Your task to perform on an android device: Open the Play Movies app and select the watchlist tab. Image 0: 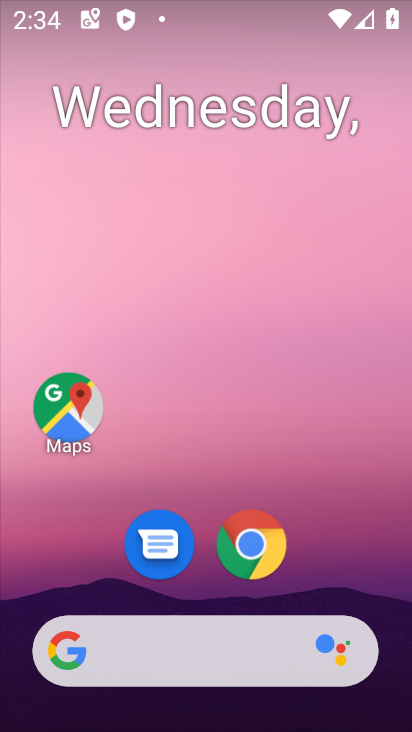
Step 0: click (353, 166)
Your task to perform on an android device: Open the Play Movies app and select the watchlist tab. Image 1: 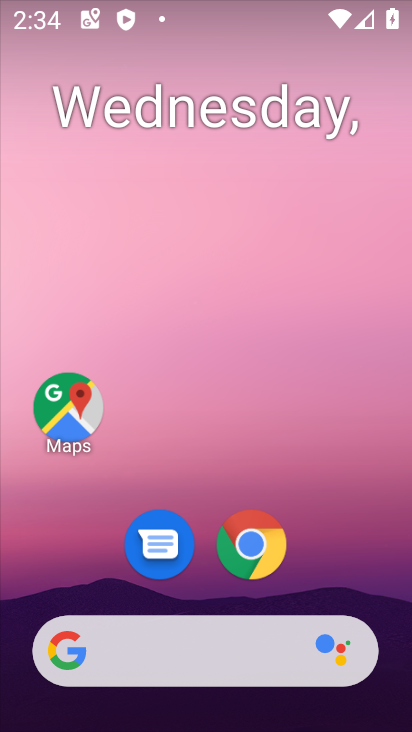
Step 1: drag from (375, 591) to (375, 131)
Your task to perform on an android device: Open the Play Movies app and select the watchlist tab. Image 2: 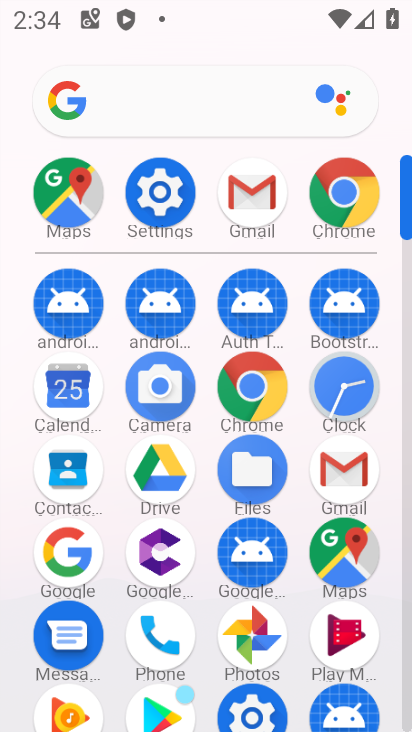
Step 2: click (346, 649)
Your task to perform on an android device: Open the Play Movies app and select the watchlist tab. Image 3: 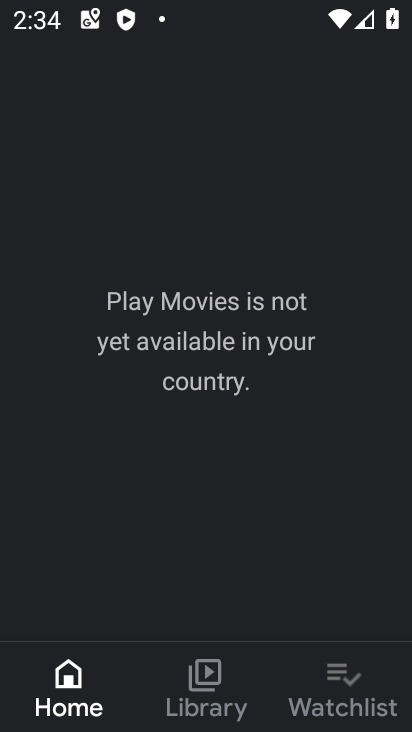
Step 3: click (346, 681)
Your task to perform on an android device: Open the Play Movies app and select the watchlist tab. Image 4: 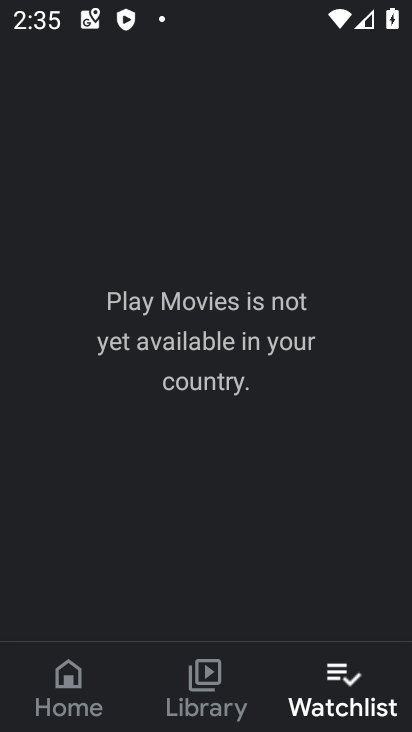
Step 4: task complete